Your task to perform on an android device: Go to sound settings Image 0: 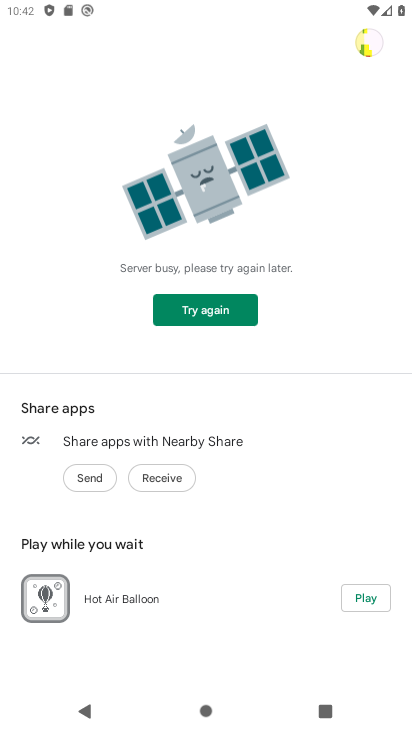
Step 0: press home button
Your task to perform on an android device: Go to sound settings Image 1: 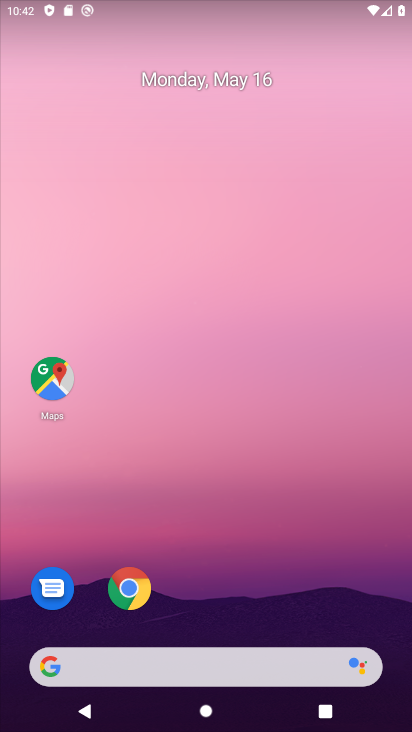
Step 1: drag from (229, 621) to (319, 114)
Your task to perform on an android device: Go to sound settings Image 2: 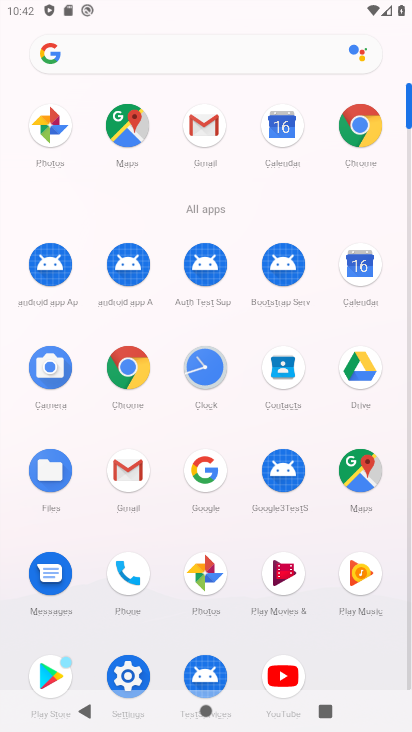
Step 2: drag from (229, 648) to (300, 389)
Your task to perform on an android device: Go to sound settings Image 3: 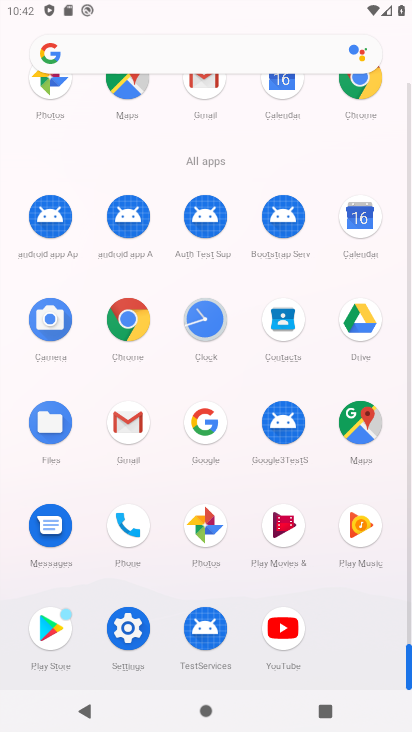
Step 3: click (133, 629)
Your task to perform on an android device: Go to sound settings Image 4: 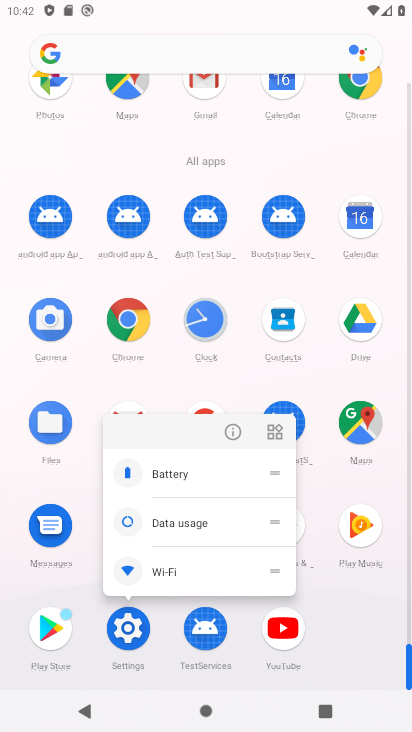
Step 4: click (124, 634)
Your task to perform on an android device: Go to sound settings Image 5: 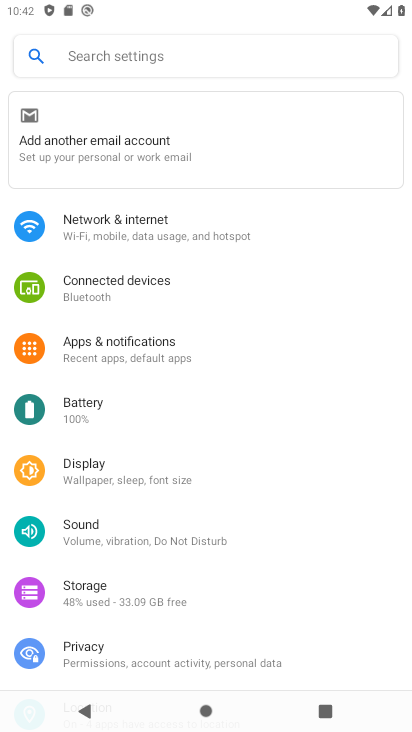
Step 5: click (116, 536)
Your task to perform on an android device: Go to sound settings Image 6: 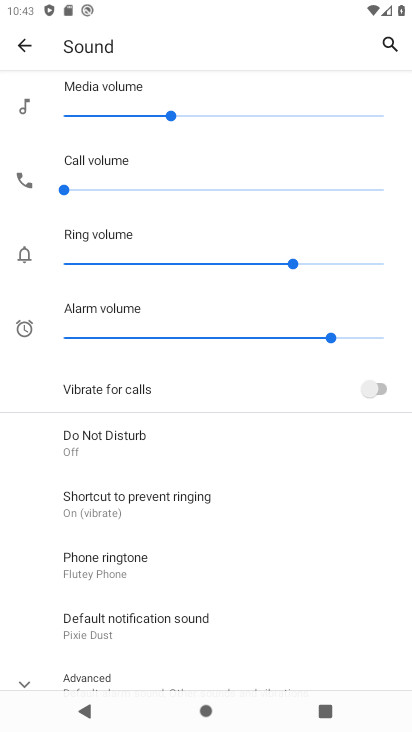
Step 6: task complete